Your task to perform on an android device: Open the web browser Image 0: 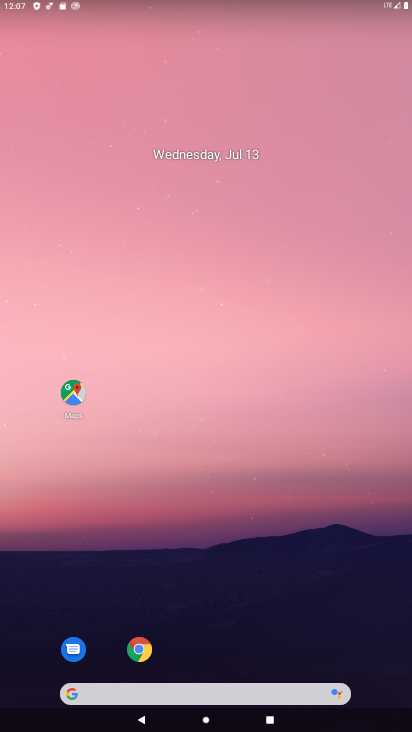
Step 0: click (138, 653)
Your task to perform on an android device: Open the web browser Image 1: 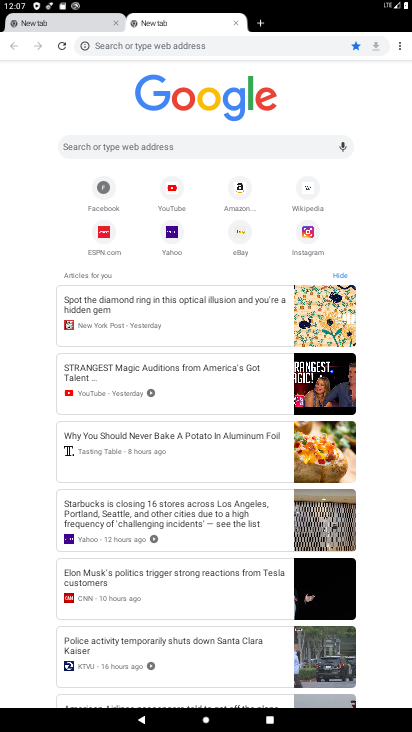
Step 1: task complete